Your task to perform on an android device: Search for a 1/2 in. x 1/2 in. x 24 in. 600 grit sander on Lowes.com Image 0: 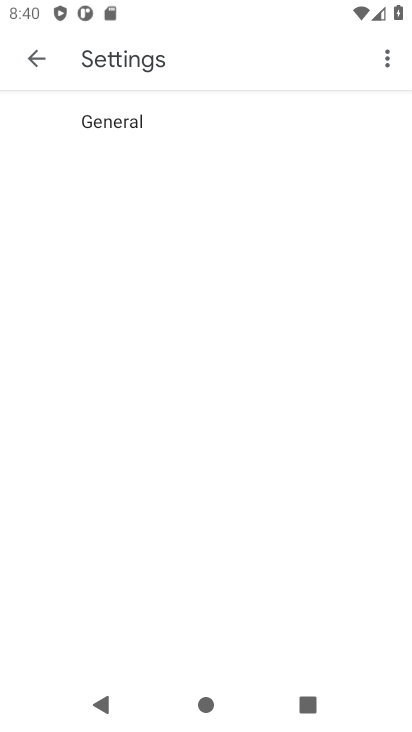
Step 0: press home button
Your task to perform on an android device: Search for a 1/2 in. x 1/2 in. x 24 in. 600 grit sander on Lowes.com Image 1: 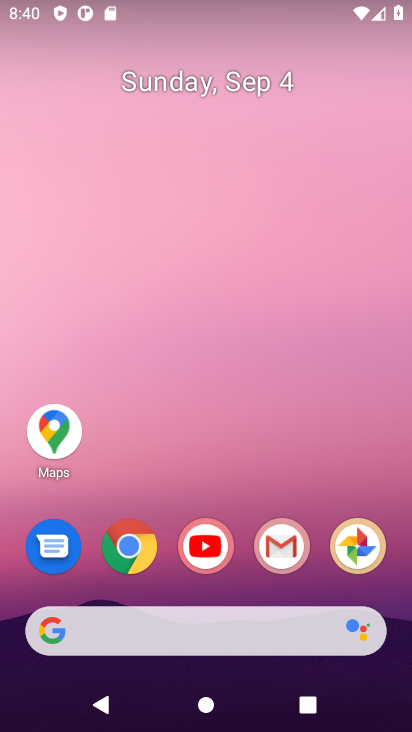
Step 1: click (134, 559)
Your task to perform on an android device: Search for a 1/2 in. x 1/2 in. x 24 in. 600 grit sander on Lowes.com Image 2: 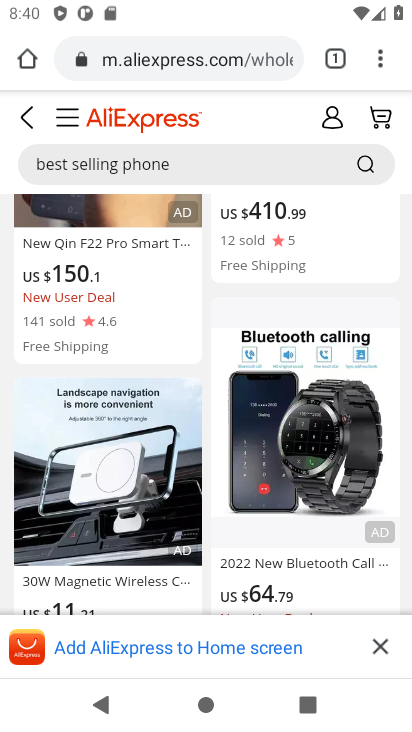
Step 2: click (161, 70)
Your task to perform on an android device: Search for a 1/2 in. x 1/2 in. x 24 in. 600 grit sander on Lowes.com Image 3: 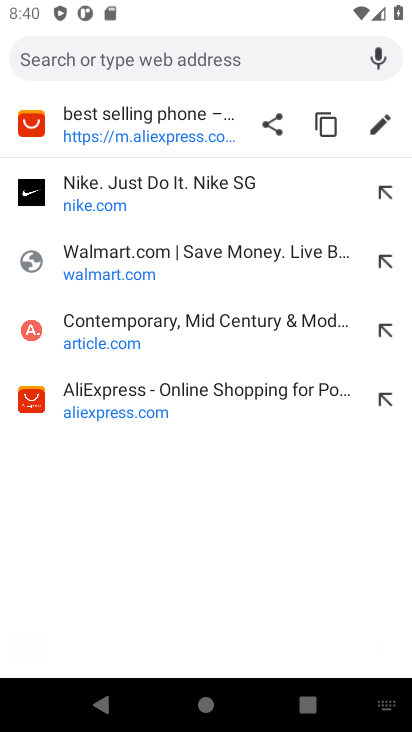
Step 3: type "Lowes.com"
Your task to perform on an android device: Search for a 1/2 in. x 1/2 in. x 24 in. 600 grit sander on Lowes.com Image 4: 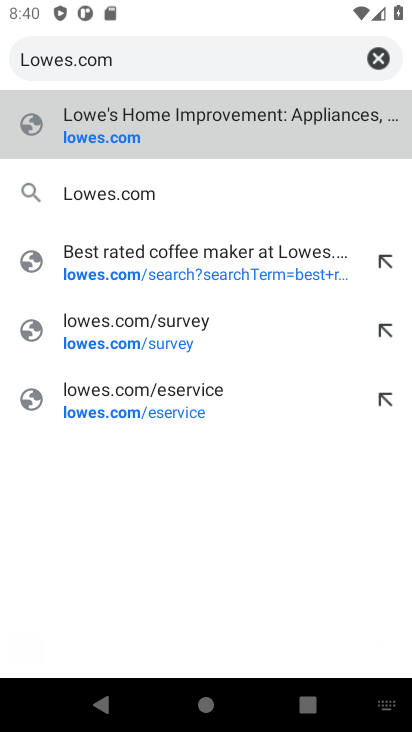
Step 4: click (102, 195)
Your task to perform on an android device: Search for a 1/2 in. x 1/2 in. x 24 in. 600 grit sander on Lowes.com Image 5: 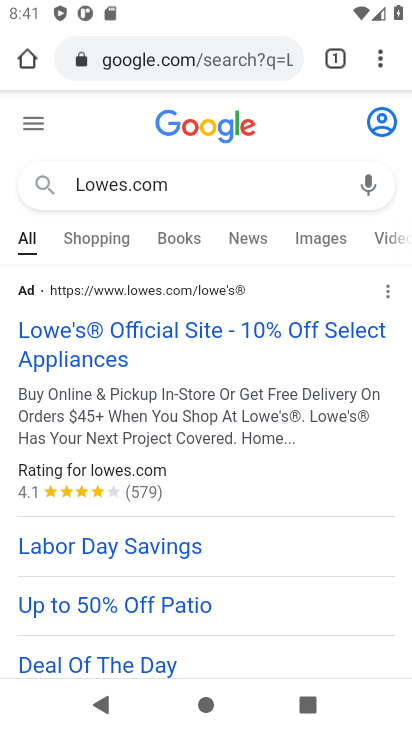
Step 5: drag from (266, 503) to (255, 152)
Your task to perform on an android device: Search for a 1/2 in. x 1/2 in. x 24 in. 600 grit sander on Lowes.com Image 6: 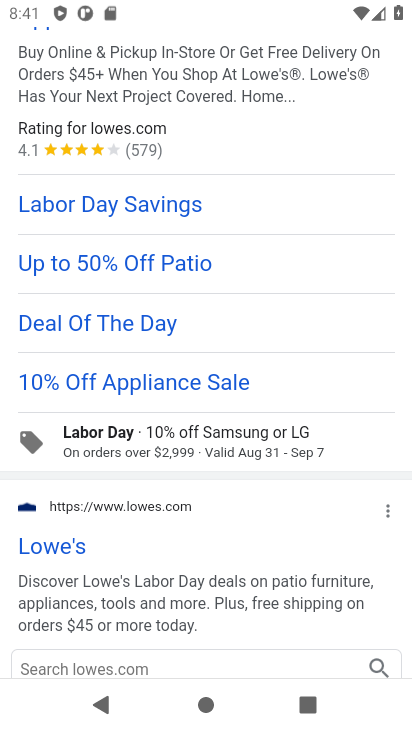
Step 6: drag from (236, 502) to (234, 279)
Your task to perform on an android device: Search for a 1/2 in. x 1/2 in. x 24 in. 600 grit sander on Lowes.com Image 7: 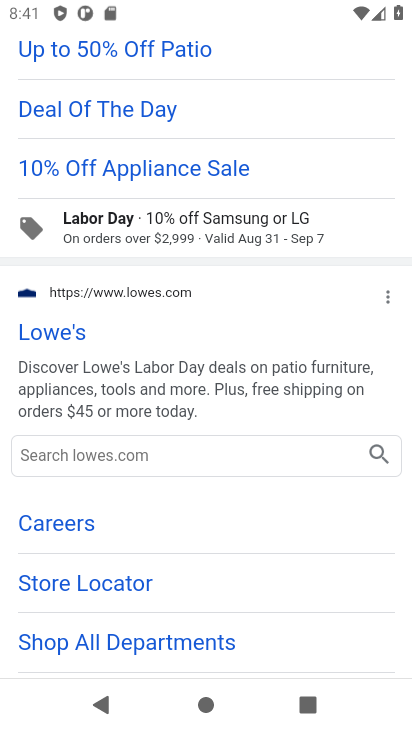
Step 7: click (47, 333)
Your task to perform on an android device: Search for a 1/2 in. x 1/2 in. x 24 in. 600 grit sander on Lowes.com Image 8: 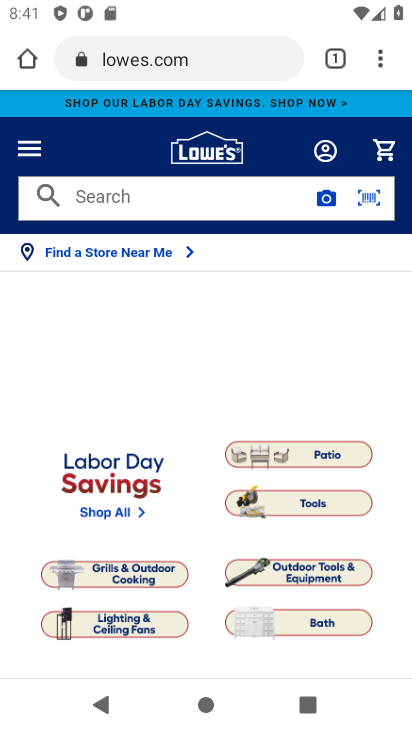
Step 8: click (117, 196)
Your task to perform on an android device: Search for a 1/2 in. x 1/2 in. x 24 in. 600 grit sander on Lowes.com Image 9: 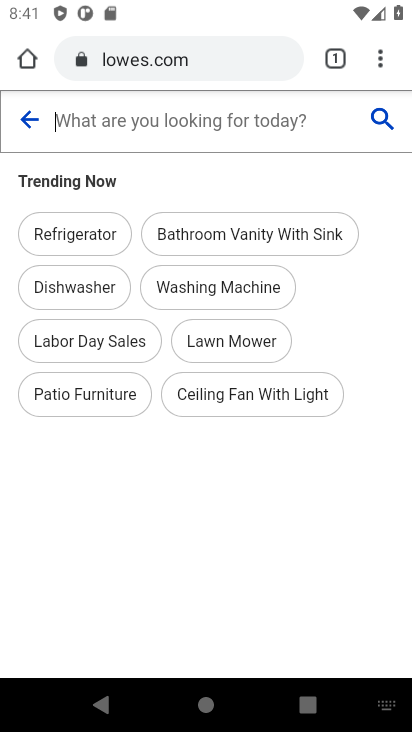
Step 9: type "1/2 in. x 1/2 in. x 24 in. 600 grit sander "
Your task to perform on an android device: Search for a 1/2 in. x 1/2 in. x 24 in. 600 grit sander on Lowes.com Image 10: 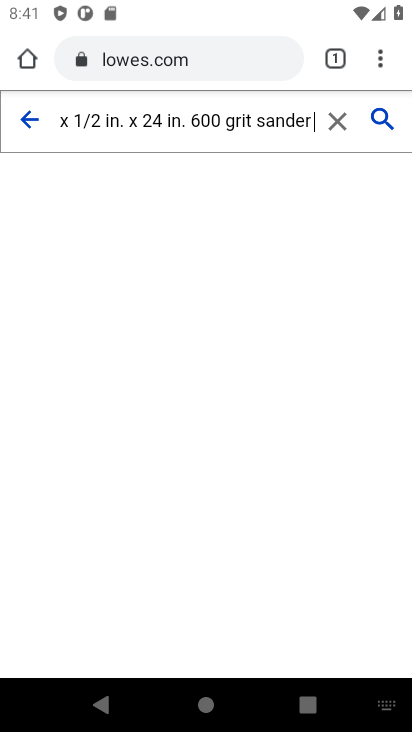
Step 10: click (375, 124)
Your task to perform on an android device: Search for a 1/2 in. x 1/2 in. x 24 in. 600 grit sander on Lowes.com Image 11: 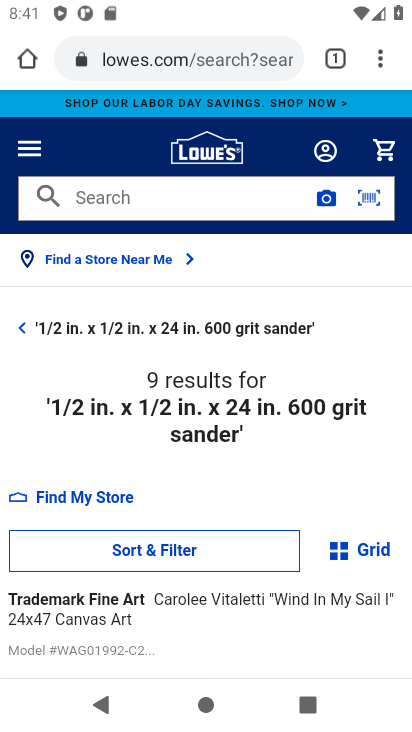
Step 11: drag from (247, 495) to (258, 335)
Your task to perform on an android device: Search for a 1/2 in. x 1/2 in. x 24 in. 600 grit sander on Lowes.com Image 12: 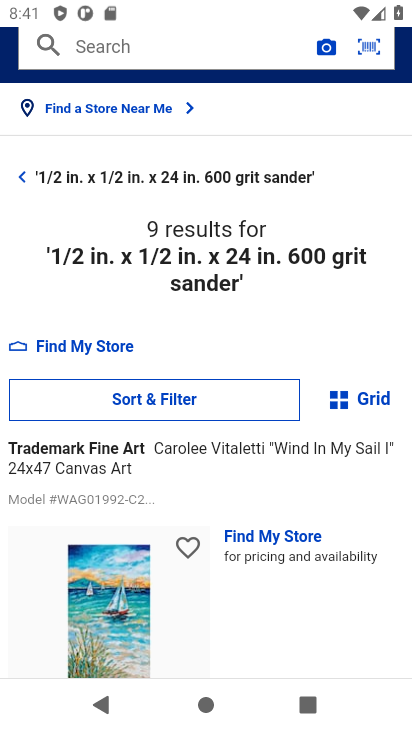
Step 12: drag from (168, 622) to (170, 419)
Your task to perform on an android device: Search for a 1/2 in. x 1/2 in. x 24 in. 600 grit sander on Lowes.com Image 13: 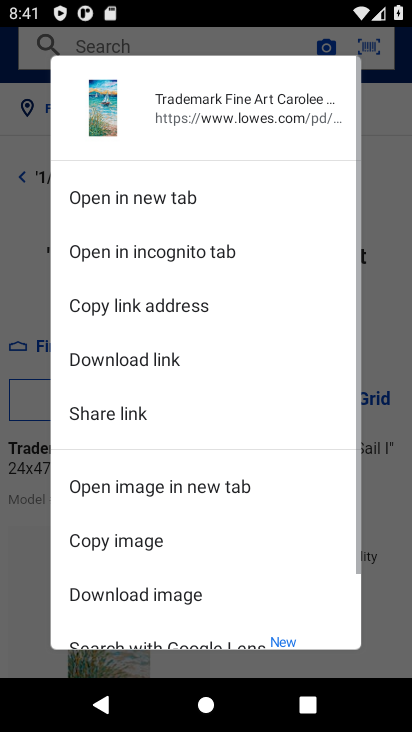
Step 13: click (402, 347)
Your task to perform on an android device: Search for a 1/2 in. x 1/2 in. x 24 in. 600 grit sander on Lowes.com Image 14: 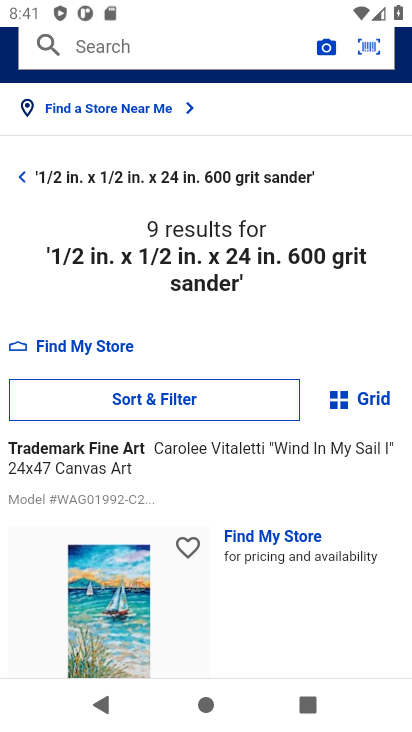
Step 14: task complete